Your task to perform on an android device: see tabs open on other devices in the chrome app Image 0: 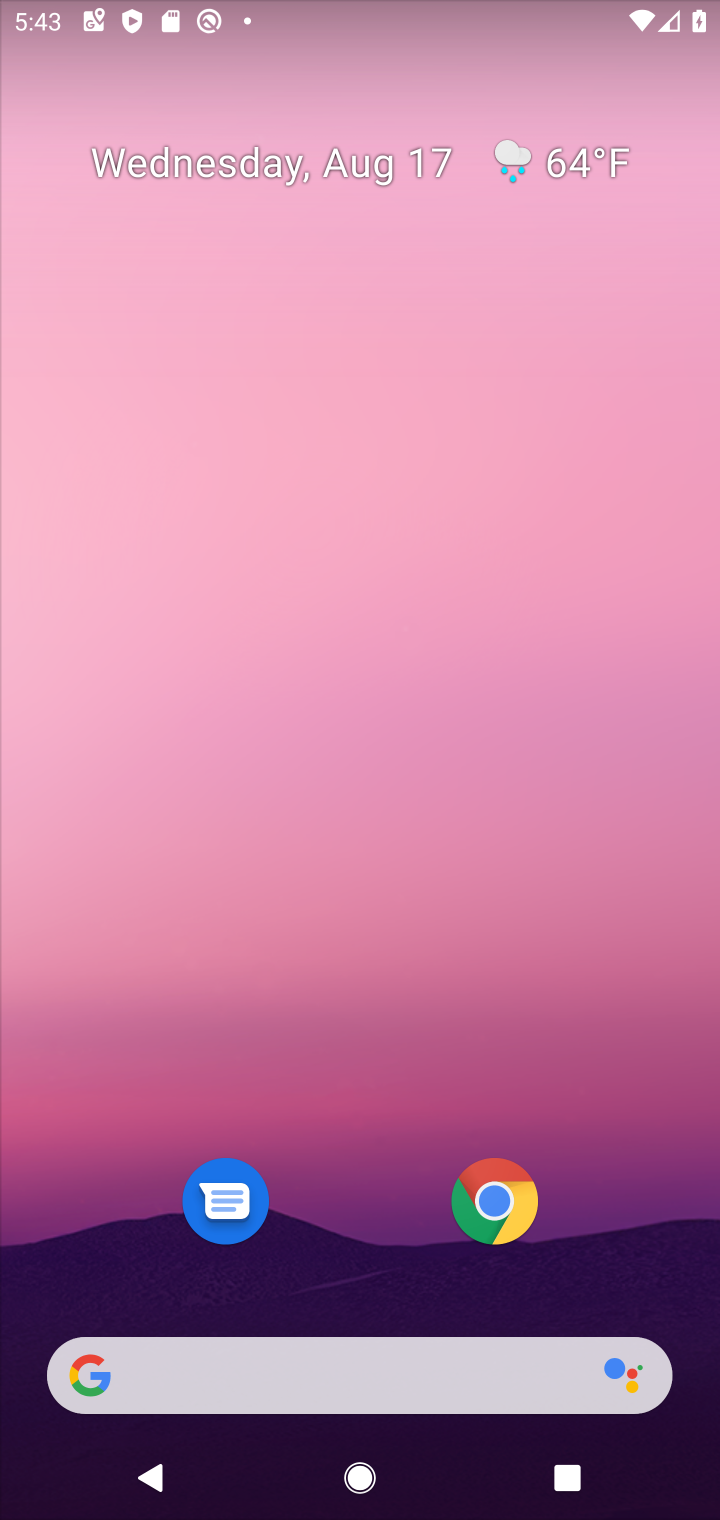
Step 0: press home button
Your task to perform on an android device: see tabs open on other devices in the chrome app Image 1: 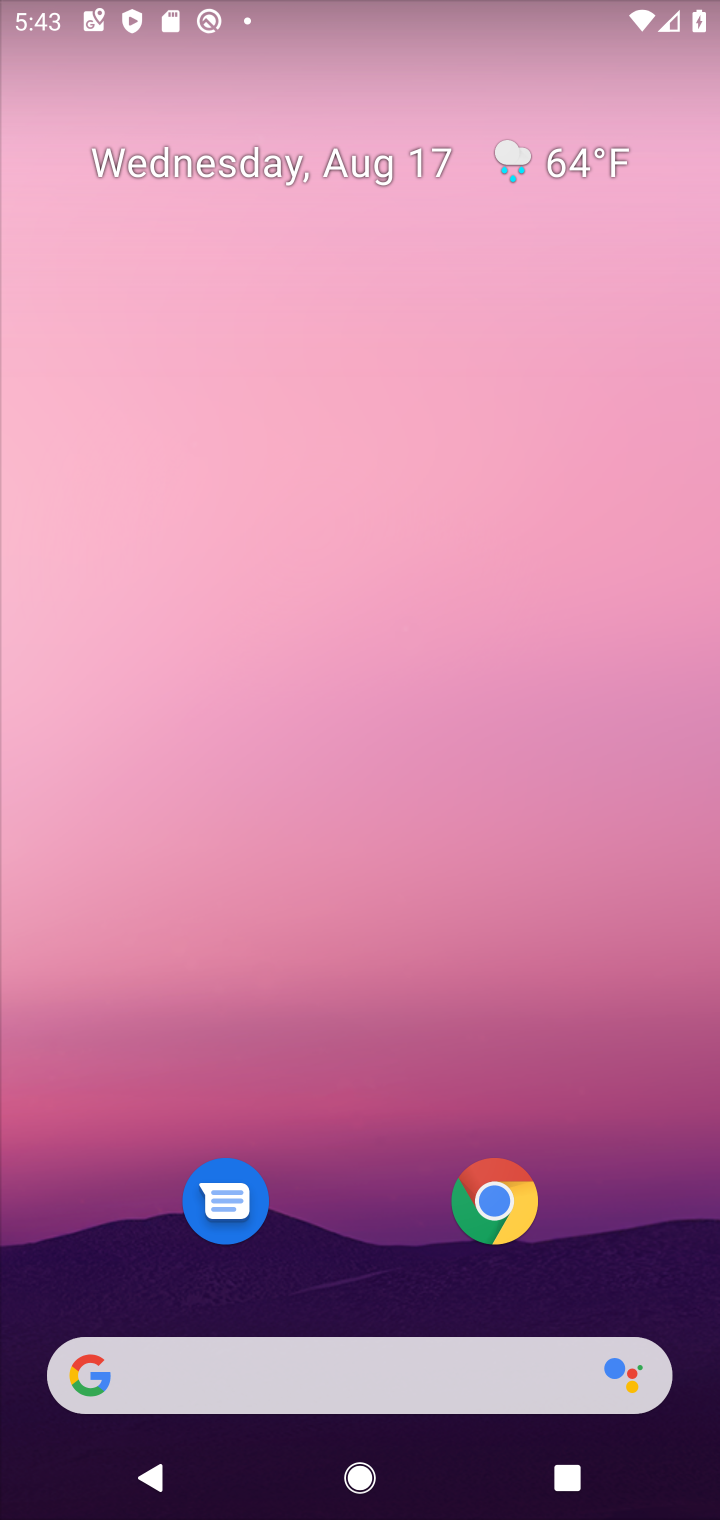
Step 1: click (472, 1228)
Your task to perform on an android device: see tabs open on other devices in the chrome app Image 2: 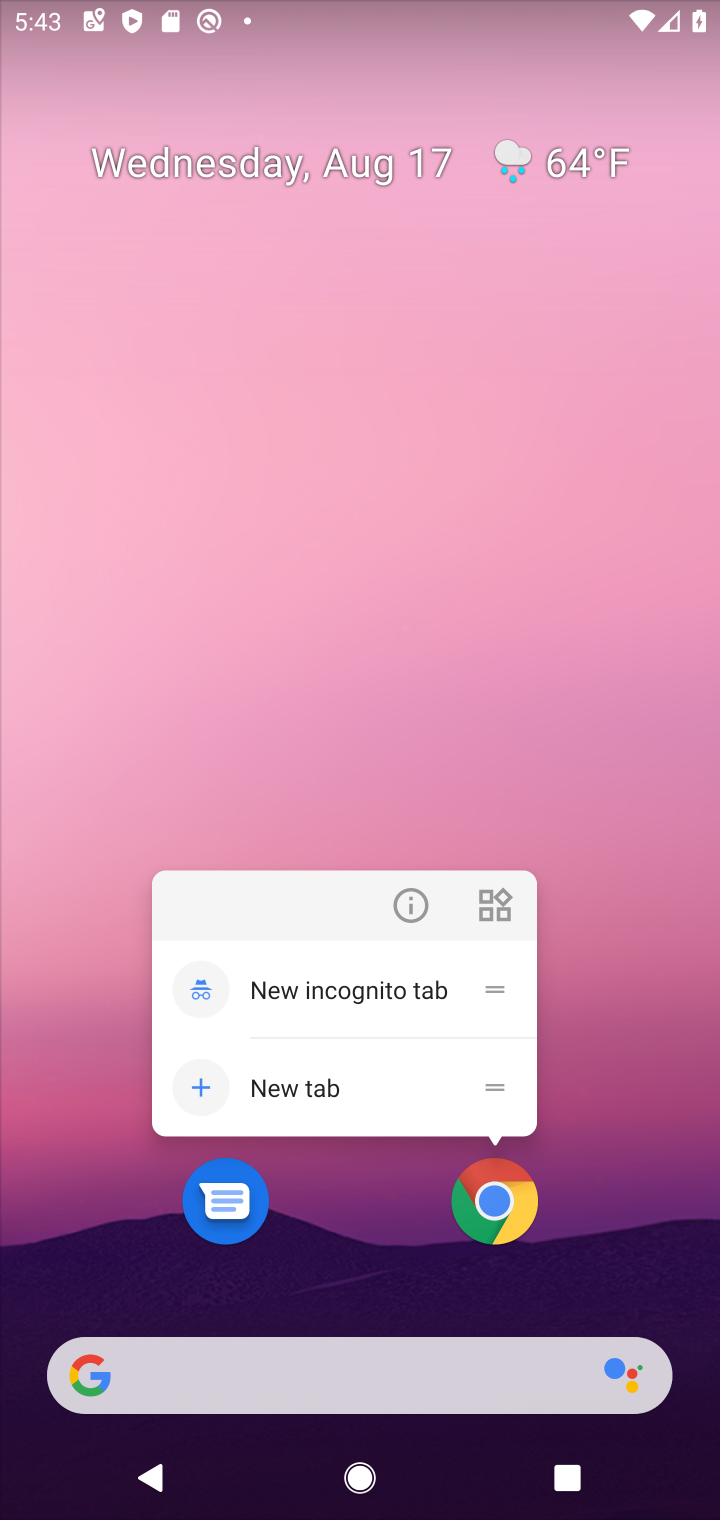
Step 2: click (517, 1220)
Your task to perform on an android device: see tabs open on other devices in the chrome app Image 3: 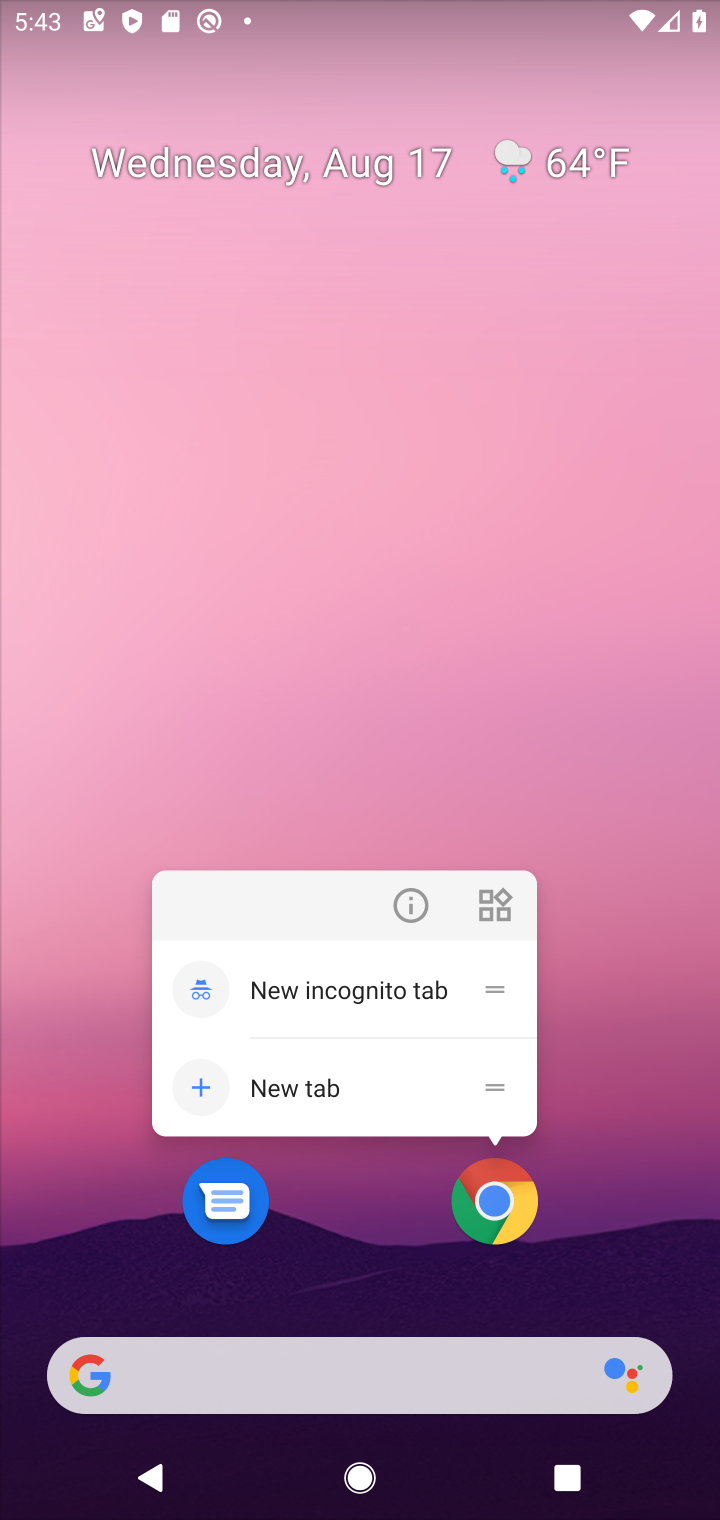
Step 3: click (466, 1170)
Your task to perform on an android device: see tabs open on other devices in the chrome app Image 4: 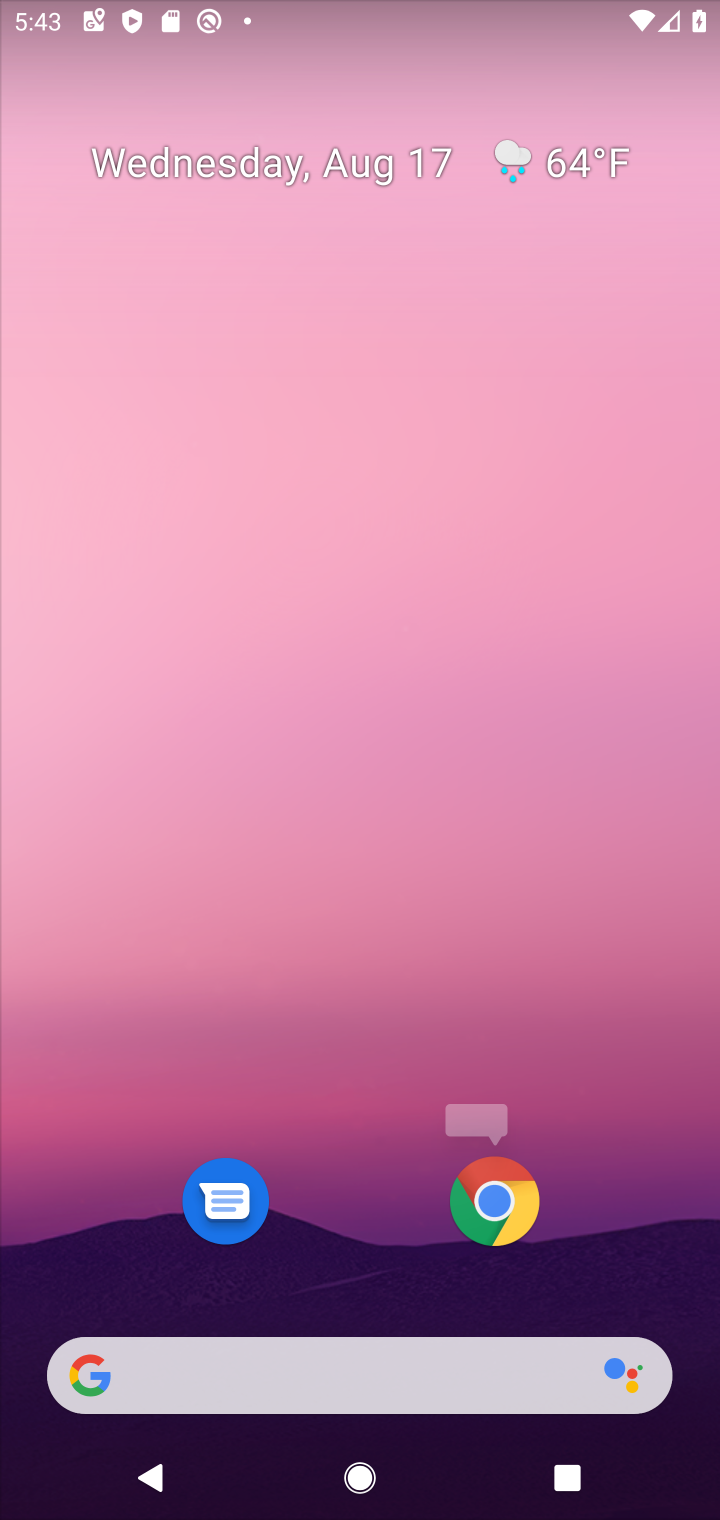
Step 4: click (495, 1204)
Your task to perform on an android device: see tabs open on other devices in the chrome app Image 5: 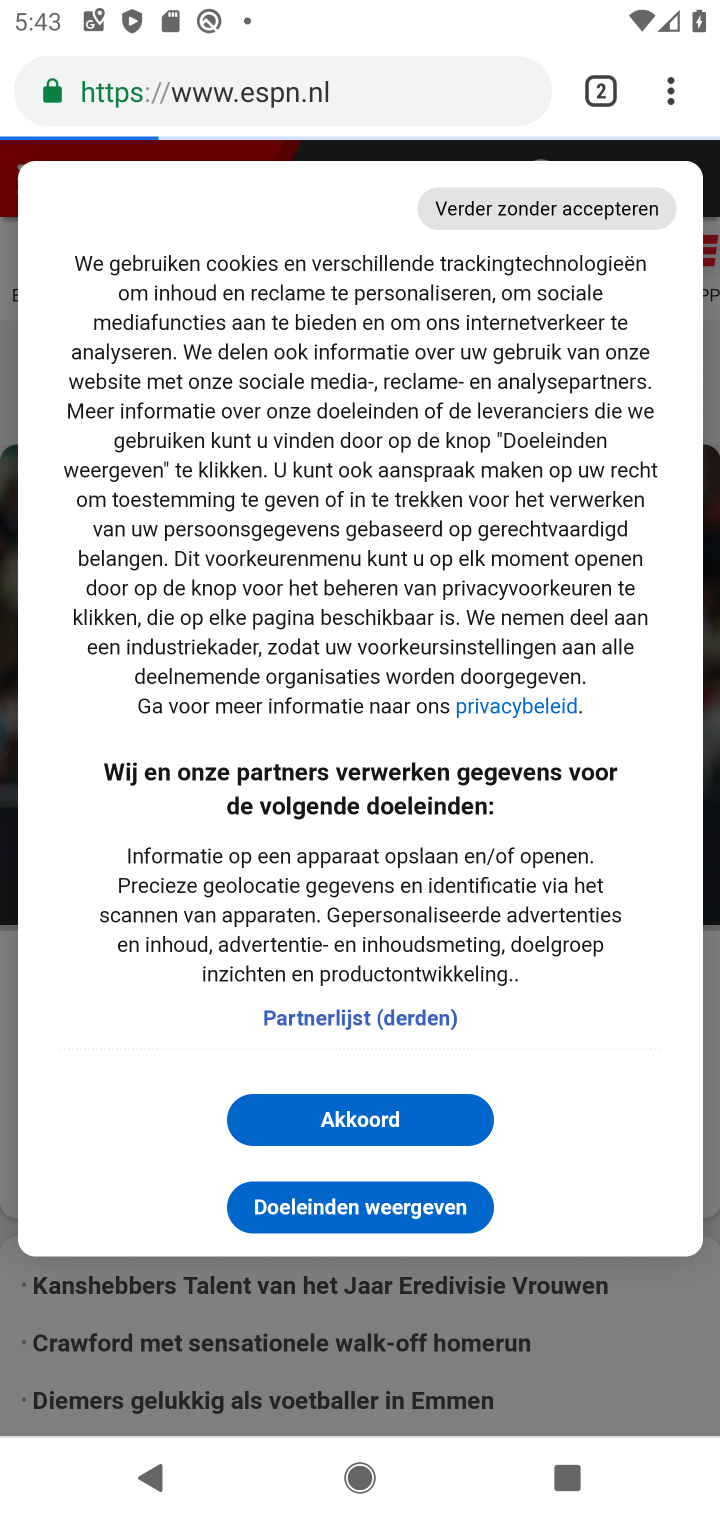
Step 5: click (390, 1119)
Your task to perform on an android device: see tabs open on other devices in the chrome app Image 6: 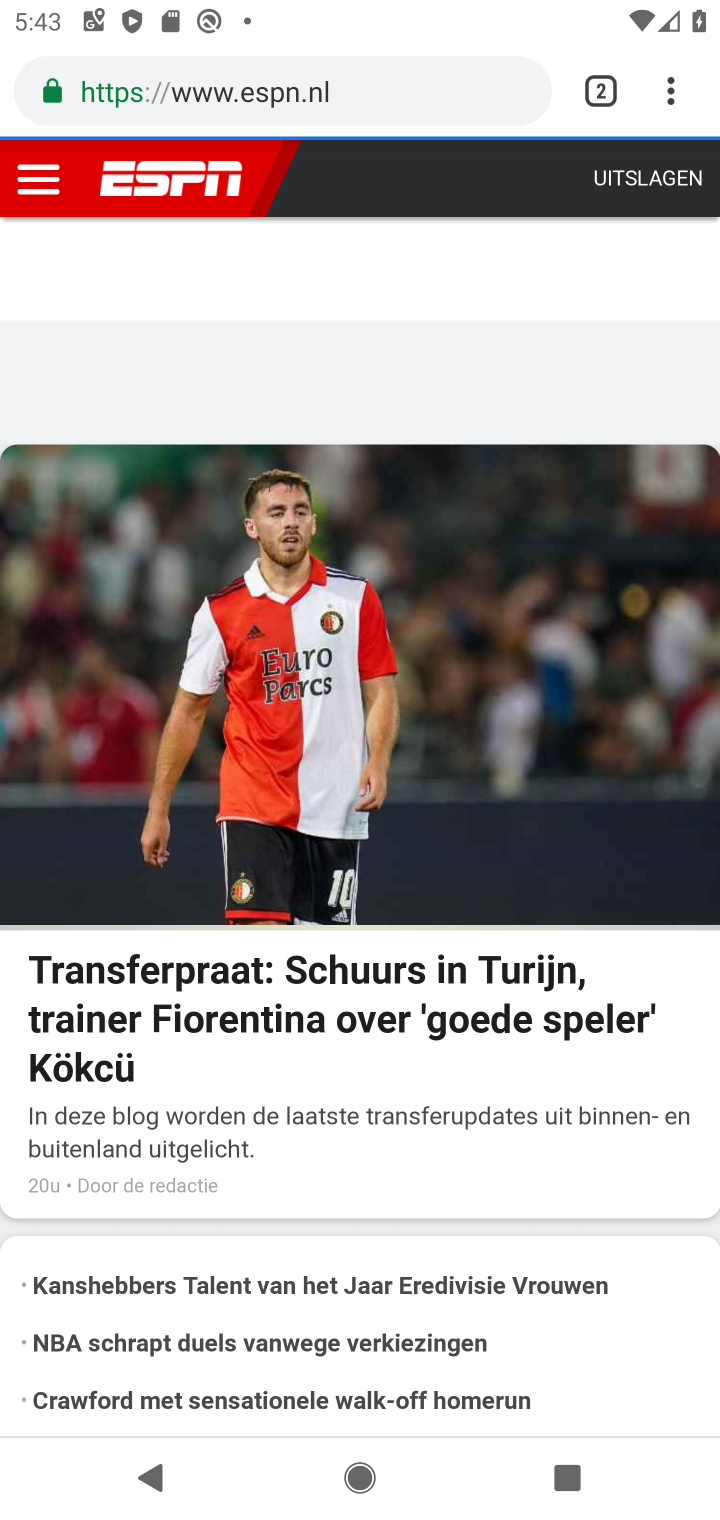
Step 6: click (663, 98)
Your task to perform on an android device: see tabs open on other devices in the chrome app Image 7: 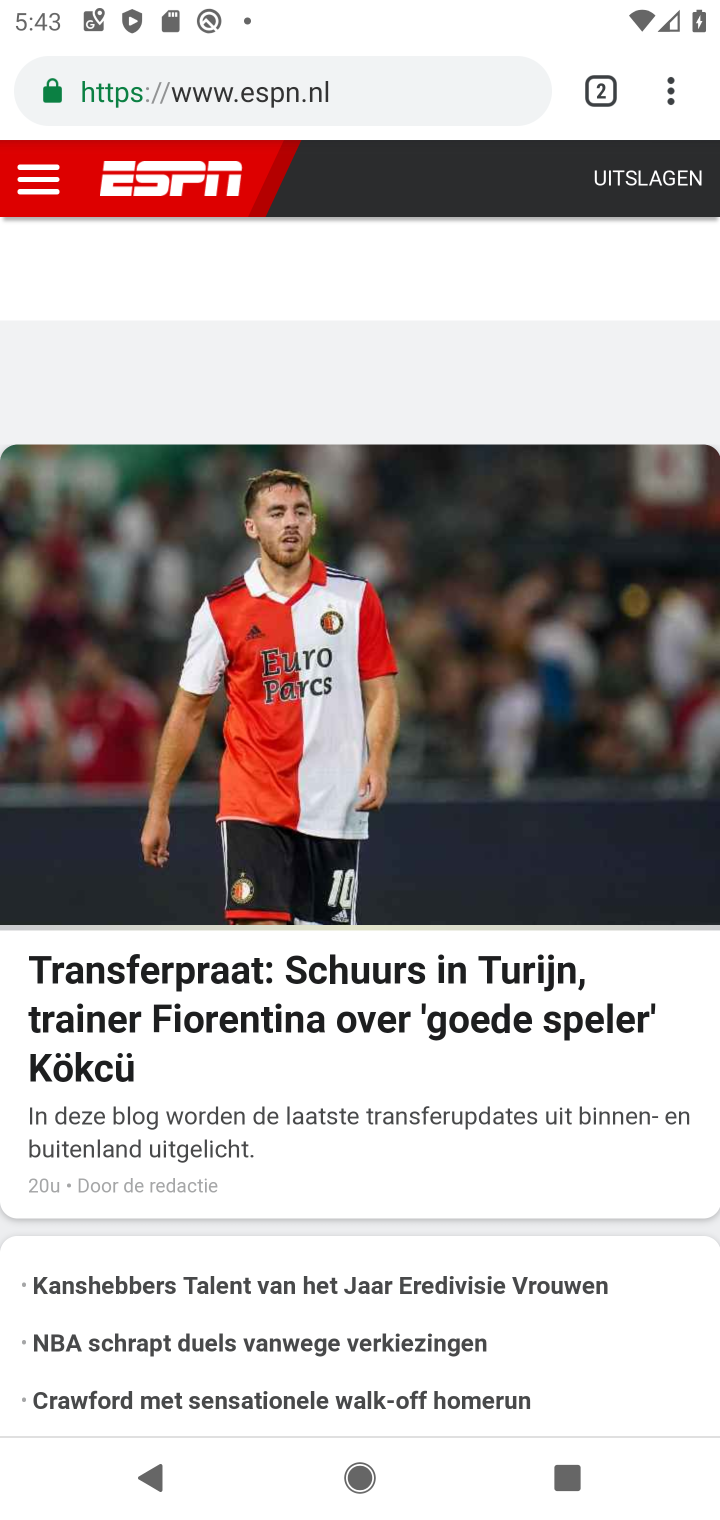
Step 7: task complete